Your task to perform on an android device: Open Google Chrome and open the bookmarks view Image 0: 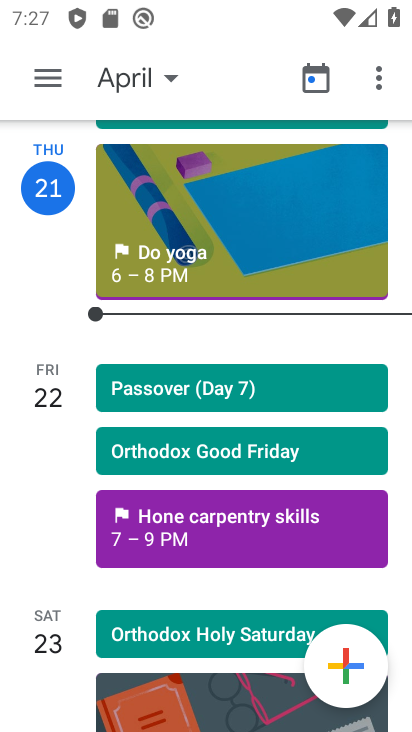
Step 0: press home button
Your task to perform on an android device: Open Google Chrome and open the bookmarks view Image 1: 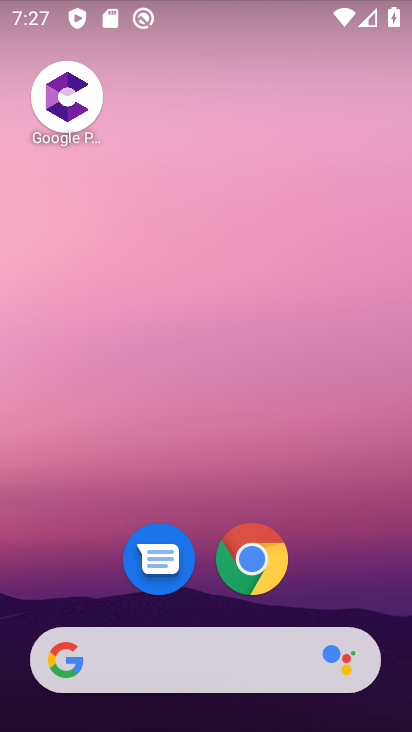
Step 1: drag from (357, 585) to (315, 245)
Your task to perform on an android device: Open Google Chrome and open the bookmarks view Image 2: 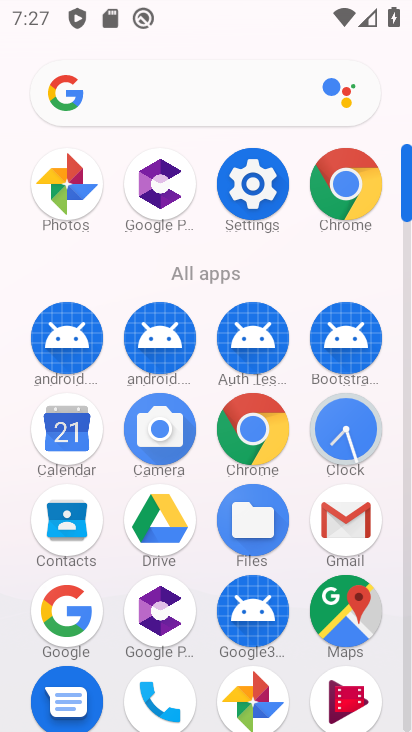
Step 2: click (254, 439)
Your task to perform on an android device: Open Google Chrome and open the bookmarks view Image 3: 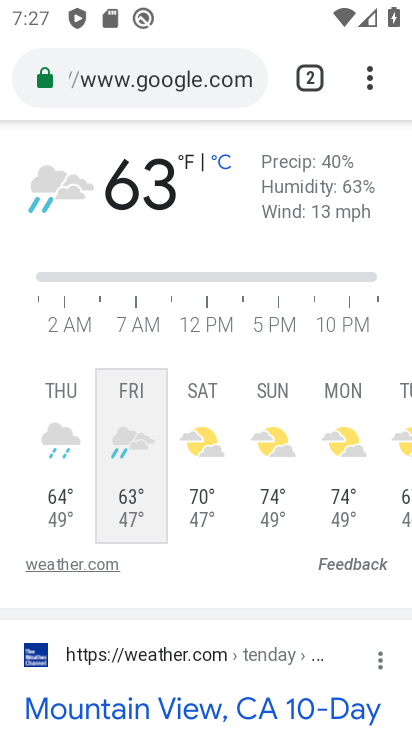
Step 3: task complete